Your task to perform on an android device: Open the phone app and click the voicemail tab. Image 0: 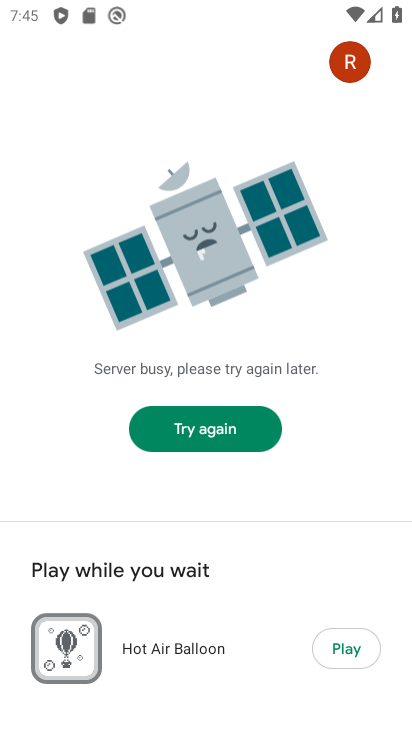
Step 0: press home button
Your task to perform on an android device: Open the phone app and click the voicemail tab. Image 1: 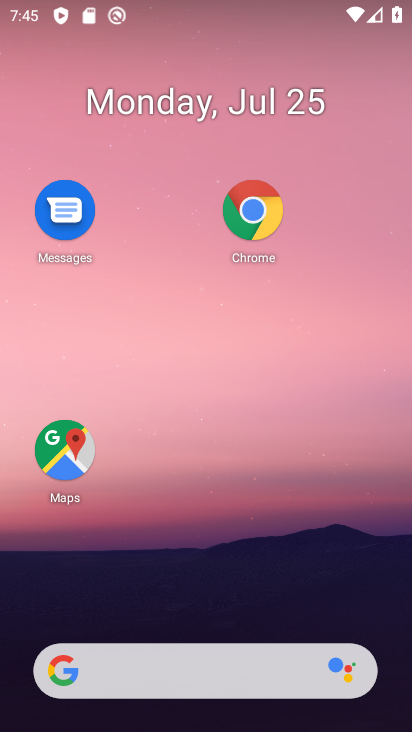
Step 1: drag from (201, 636) to (101, 56)
Your task to perform on an android device: Open the phone app and click the voicemail tab. Image 2: 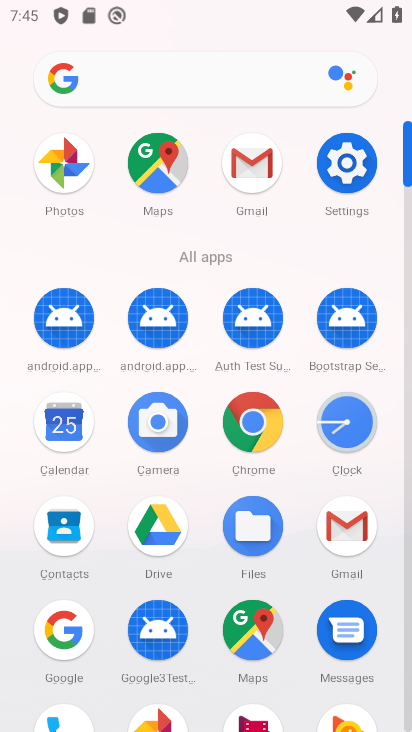
Step 2: click (45, 701)
Your task to perform on an android device: Open the phone app and click the voicemail tab. Image 3: 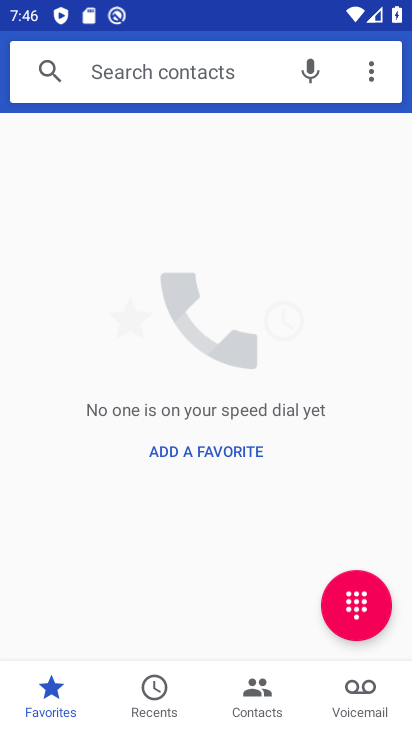
Step 3: click (351, 686)
Your task to perform on an android device: Open the phone app and click the voicemail tab. Image 4: 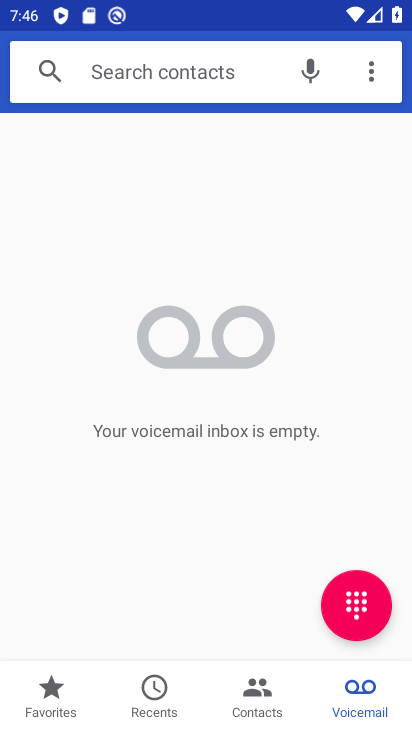
Step 4: task complete